Your task to perform on an android device: open sync settings in chrome Image 0: 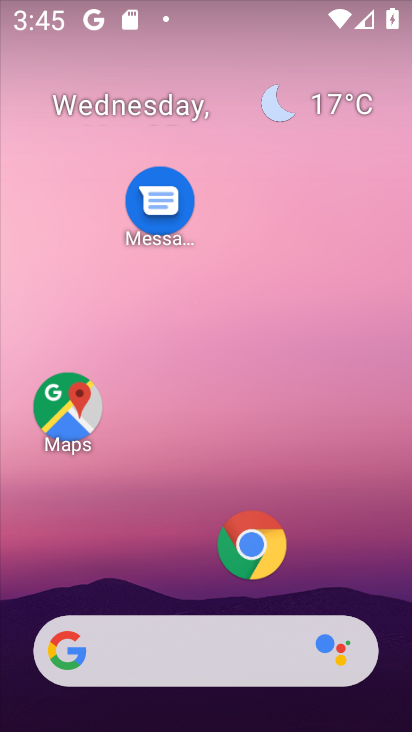
Step 0: click (256, 545)
Your task to perform on an android device: open sync settings in chrome Image 1: 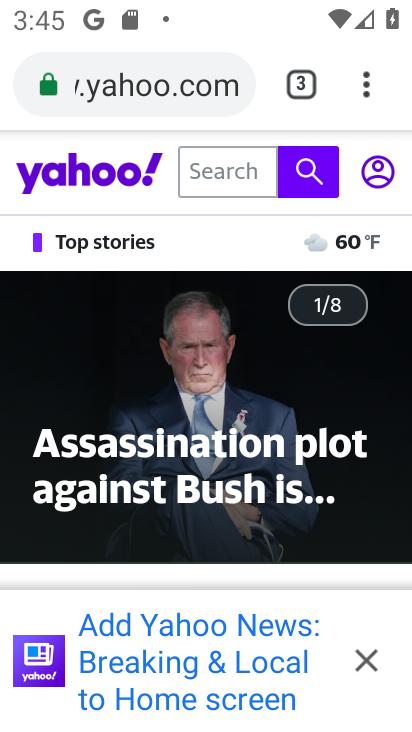
Step 1: click (369, 84)
Your task to perform on an android device: open sync settings in chrome Image 2: 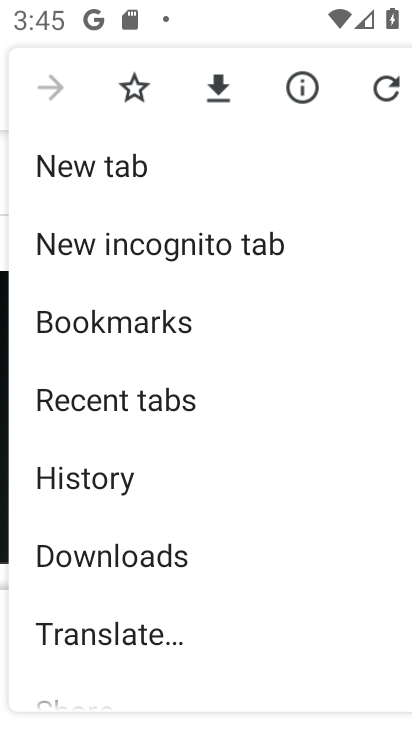
Step 2: drag from (223, 619) to (220, 270)
Your task to perform on an android device: open sync settings in chrome Image 3: 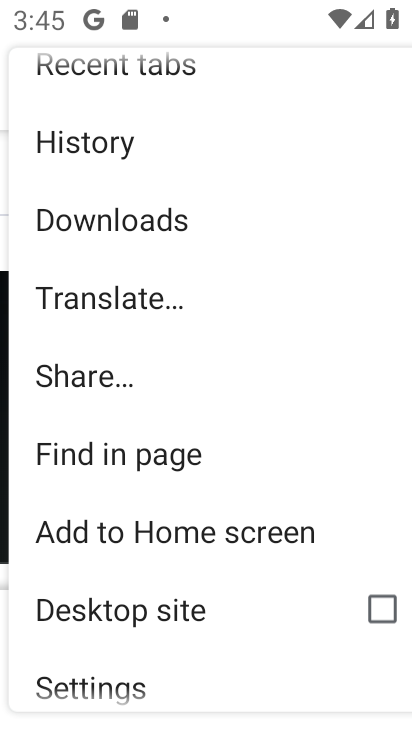
Step 3: click (116, 681)
Your task to perform on an android device: open sync settings in chrome Image 4: 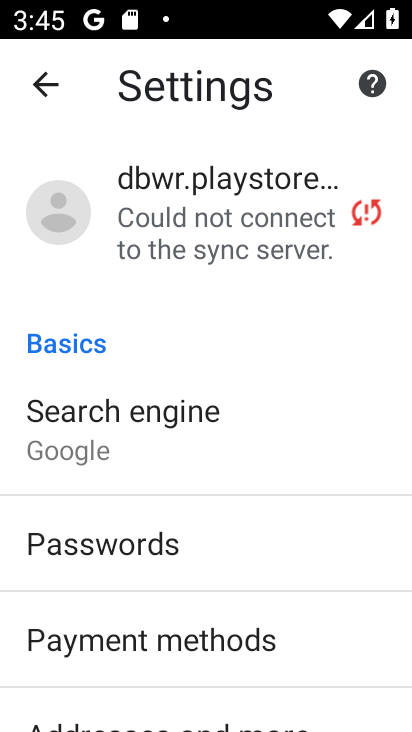
Step 4: drag from (272, 608) to (259, 547)
Your task to perform on an android device: open sync settings in chrome Image 5: 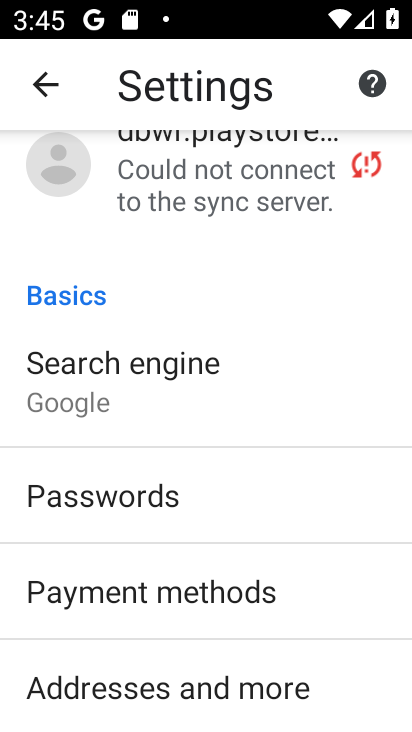
Step 5: click (260, 145)
Your task to perform on an android device: open sync settings in chrome Image 6: 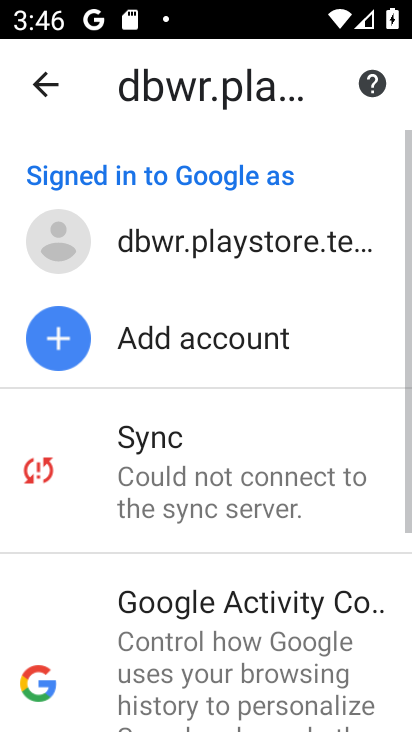
Step 6: click (166, 451)
Your task to perform on an android device: open sync settings in chrome Image 7: 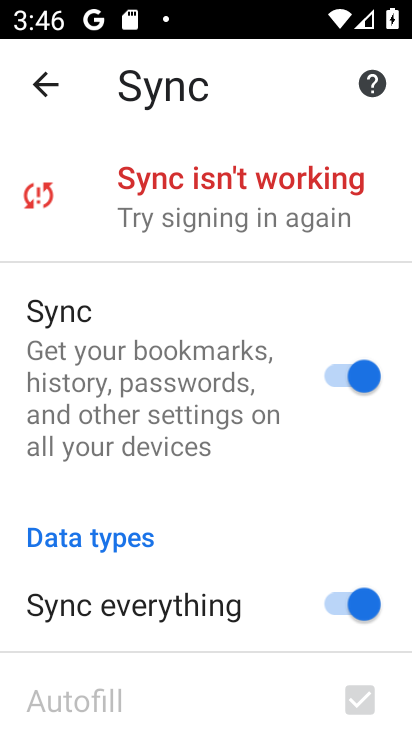
Step 7: task complete